Your task to perform on an android device: What's the weather going to be this weekend? Image 0: 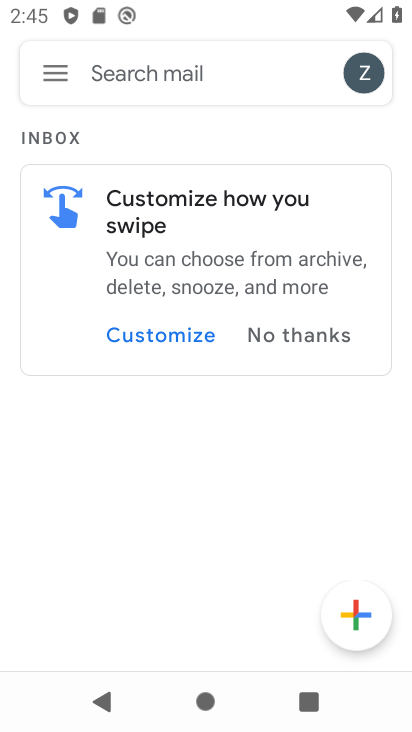
Step 0: press home button
Your task to perform on an android device: What's the weather going to be this weekend? Image 1: 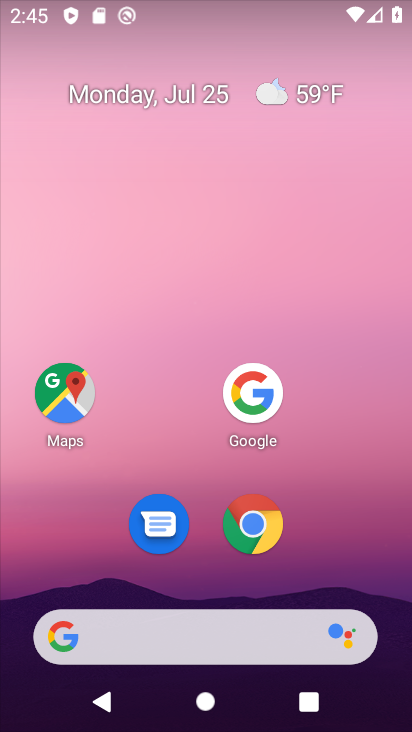
Step 1: click (131, 640)
Your task to perform on an android device: What's the weather going to be this weekend? Image 2: 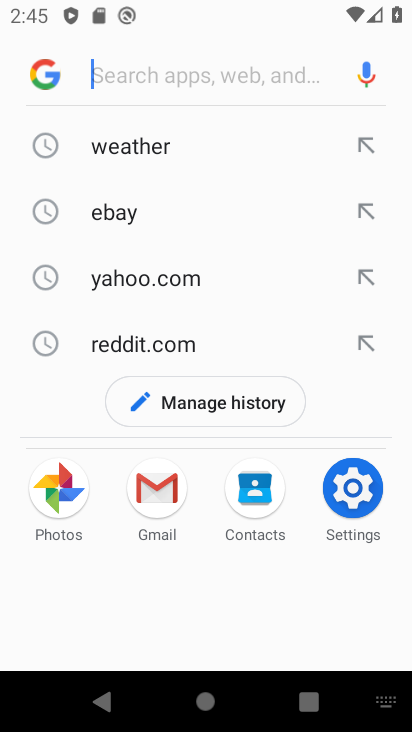
Step 2: click (136, 142)
Your task to perform on an android device: What's the weather going to be this weekend? Image 3: 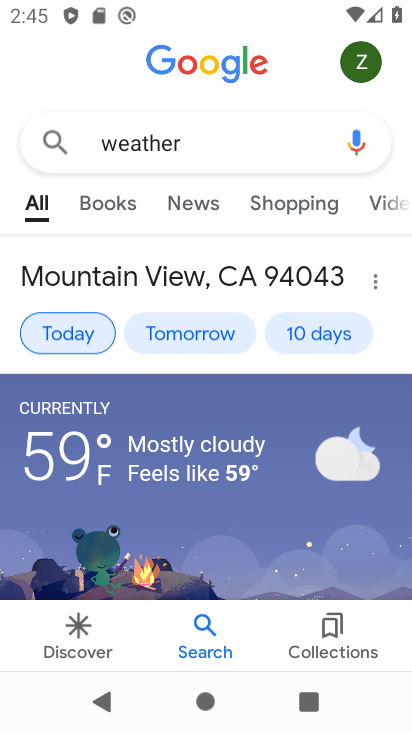
Step 3: click (334, 343)
Your task to perform on an android device: What's the weather going to be this weekend? Image 4: 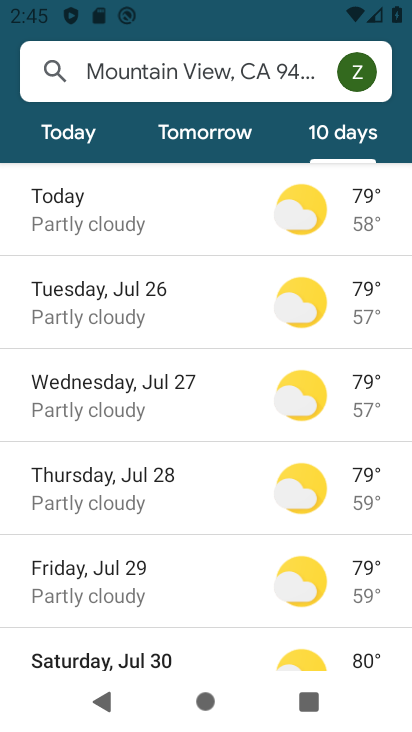
Step 4: task complete